Your task to perform on an android device: delete a single message in the gmail app Image 0: 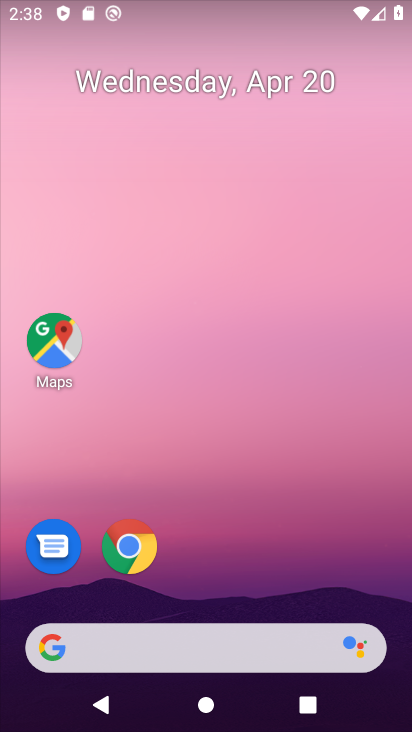
Step 0: drag from (242, 592) to (270, 90)
Your task to perform on an android device: delete a single message in the gmail app Image 1: 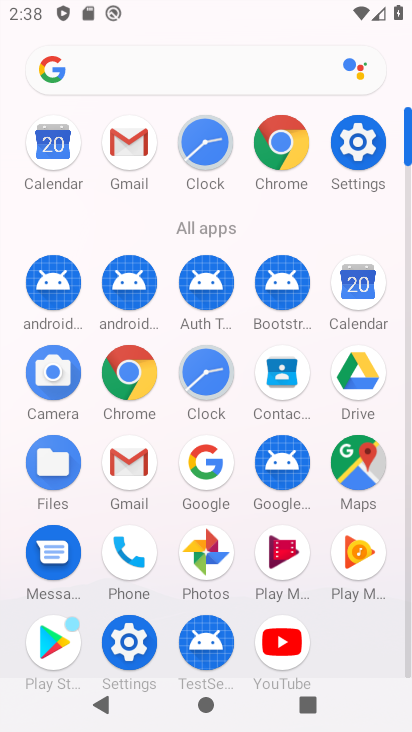
Step 1: click (131, 467)
Your task to perform on an android device: delete a single message in the gmail app Image 2: 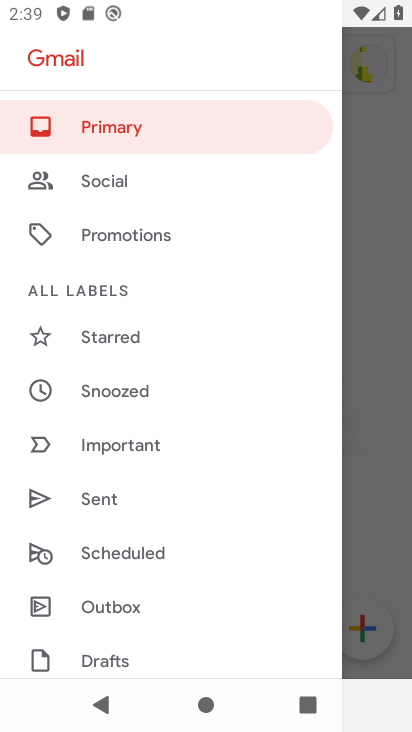
Step 2: click (402, 269)
Your task to perform on an android device: delete a single message in the gmail app Image 3: 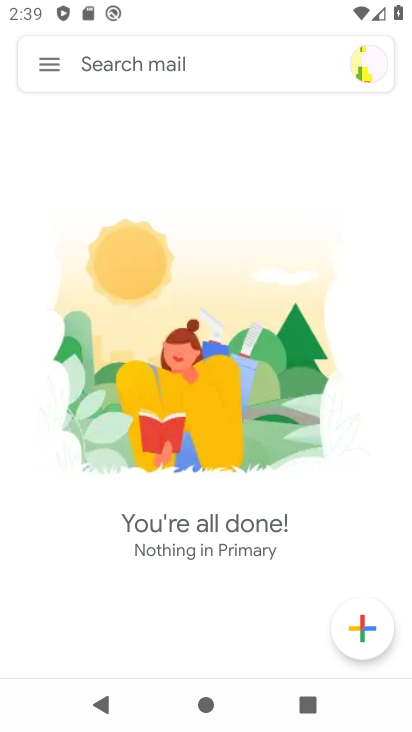
Step 3: task complete